Your task to perform on an android device: Open display settings Image 0: 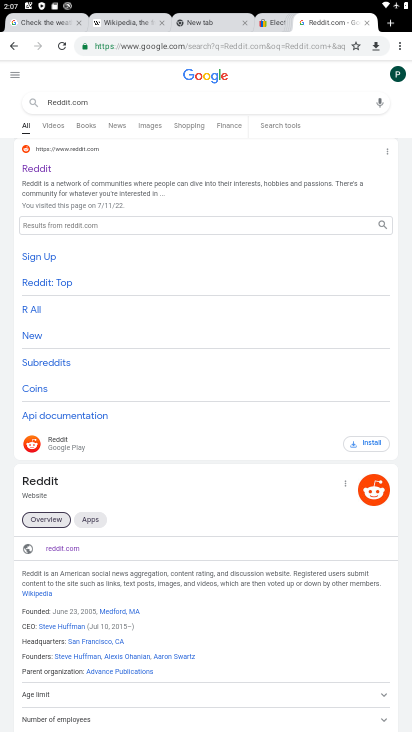
Step 0: press home button
Your task to perform on an android device: Open display settings Image 1: 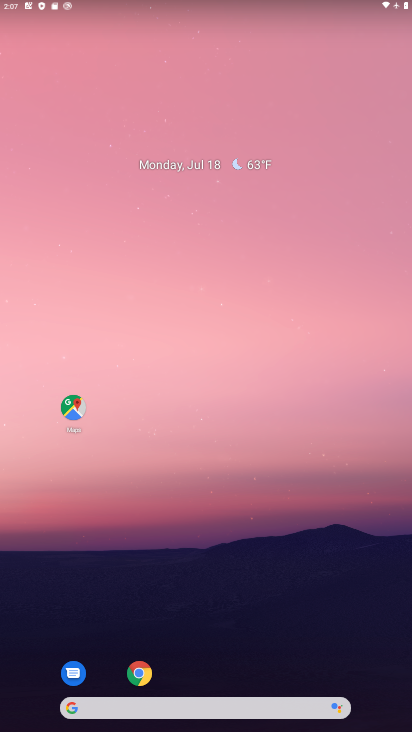
Step 1: drag from (187, 639) to (212, 317)
Your task to perform on an android device: Open display settings Image 2: 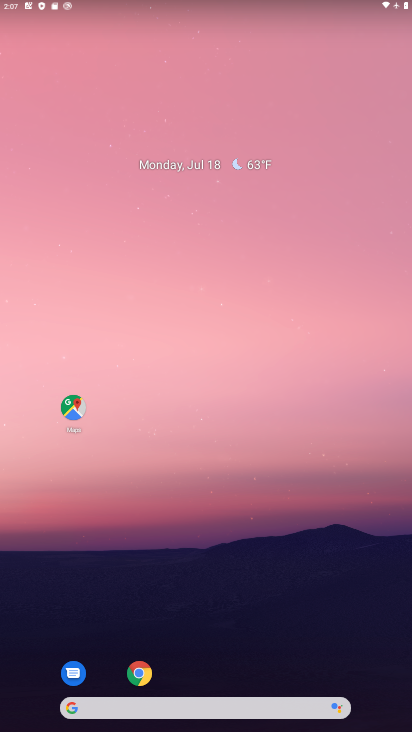
Step 2: drag from (227, 673) to (230, 233)
Your task to perform on an android device: Open display settings Image 3: 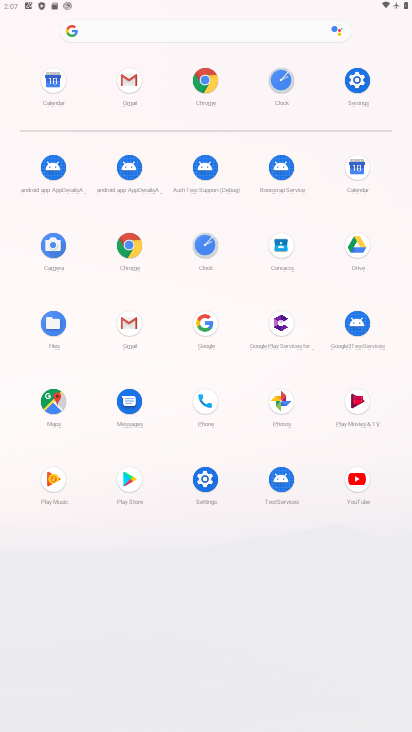
Step 3: click (351, 81)
Your task to perform on an android device: Open display settings Image 4: 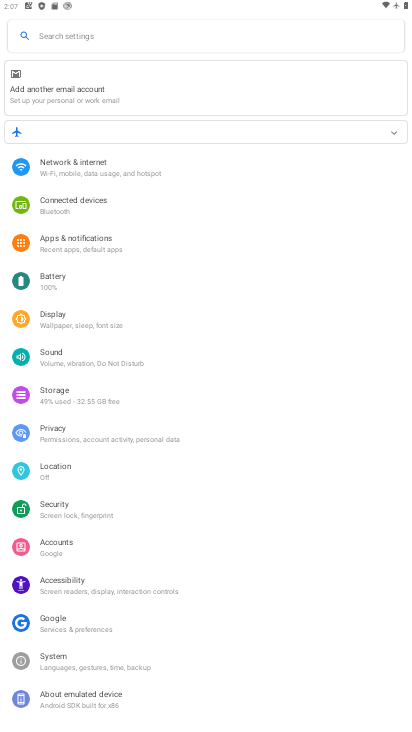
Step 4: click (58, 310)
Your task to perform on an android device: Open display settings Image 5: 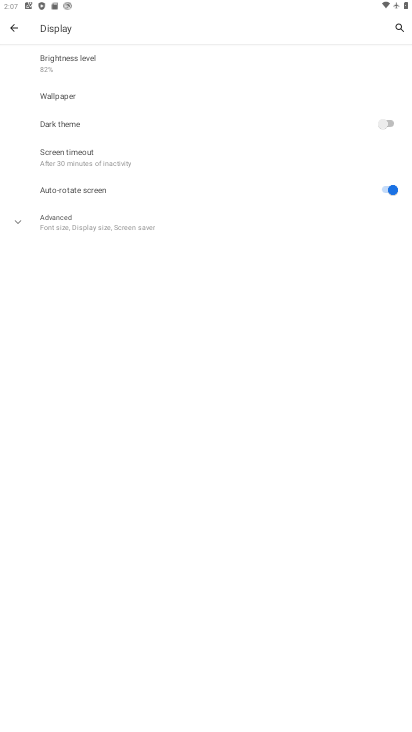
Step 5: task complete